Your task to perform on an android device: turn pop-ups off in chrome Image 0: 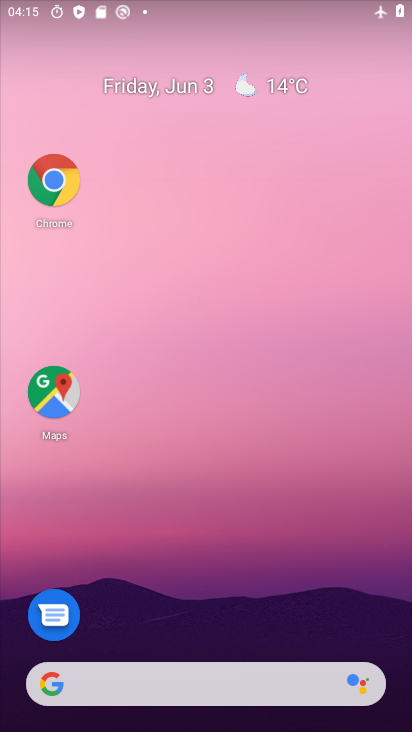
Step 0: click (62, 175)
Your task to perform on an android device: turn pop-ups off in chrome Image 1: 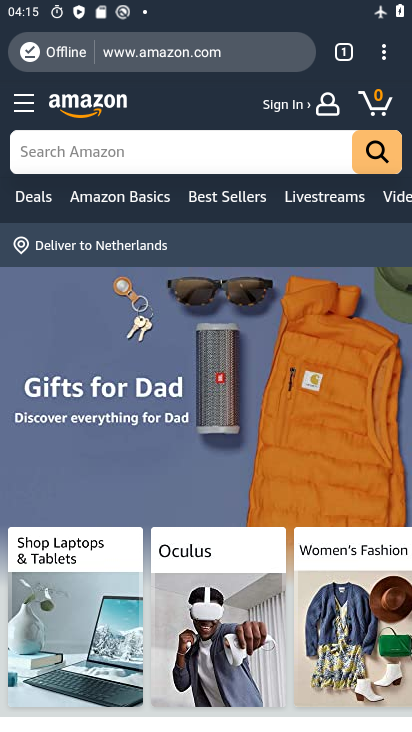
Step 1: click (385, 50)
Your task to perform on an android device: turn pop-ups off in chrome Image 2: 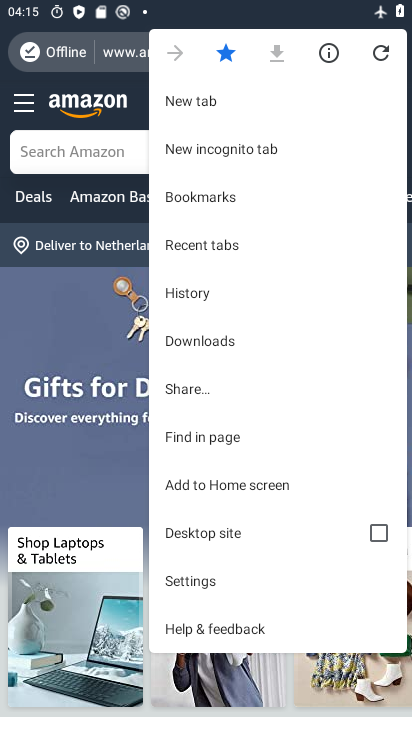
Step 2: click (204, 583)
Your task to perform on an android device: turn pop-ups off in chrome Image 3: 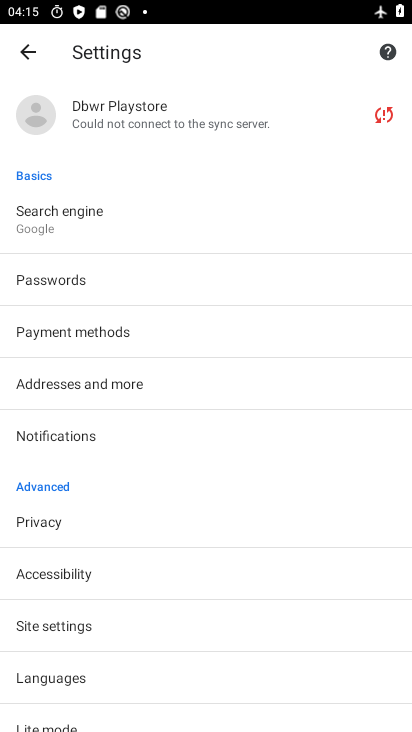
Step 3: click (48, 632)
Your task to perform on an android device: turn pop-ups off in chrome Image 4: 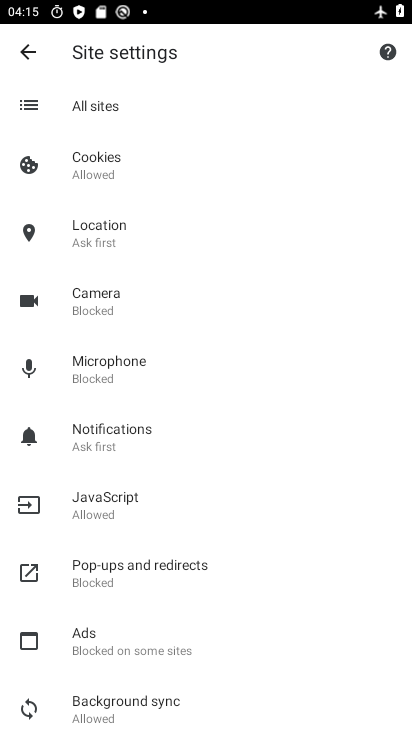
Step 4: click (106, 577)
Your task to perform on an android device: turn pop-ups off in chrome Image 5: 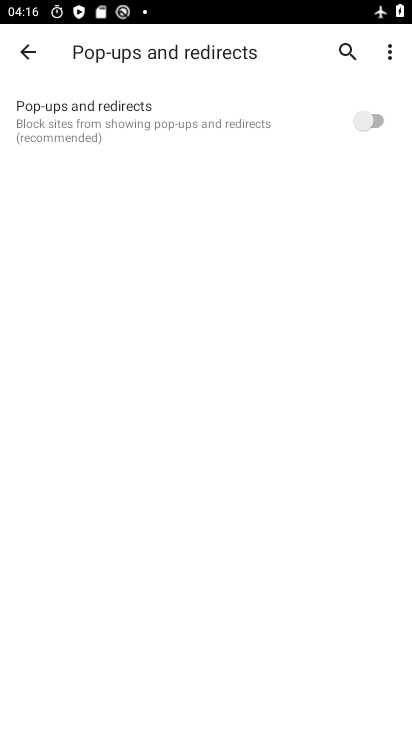
Step 5: task complete